Your task to perform on an android device: Go to privacy settings Image 0: 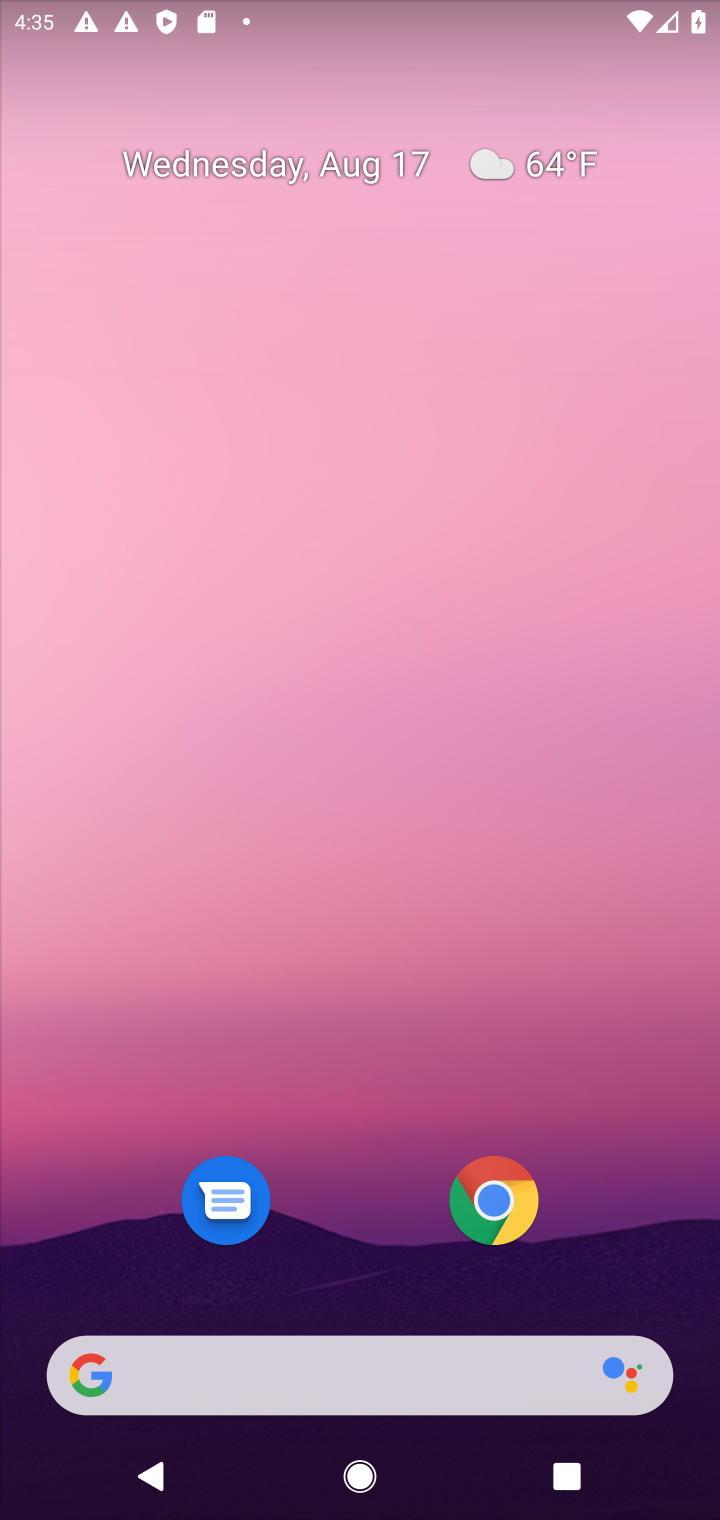
Step 0: drag from (406, 516) to (400, 190)
Your task to perform on an android device: Go to privacy settings Image 1: 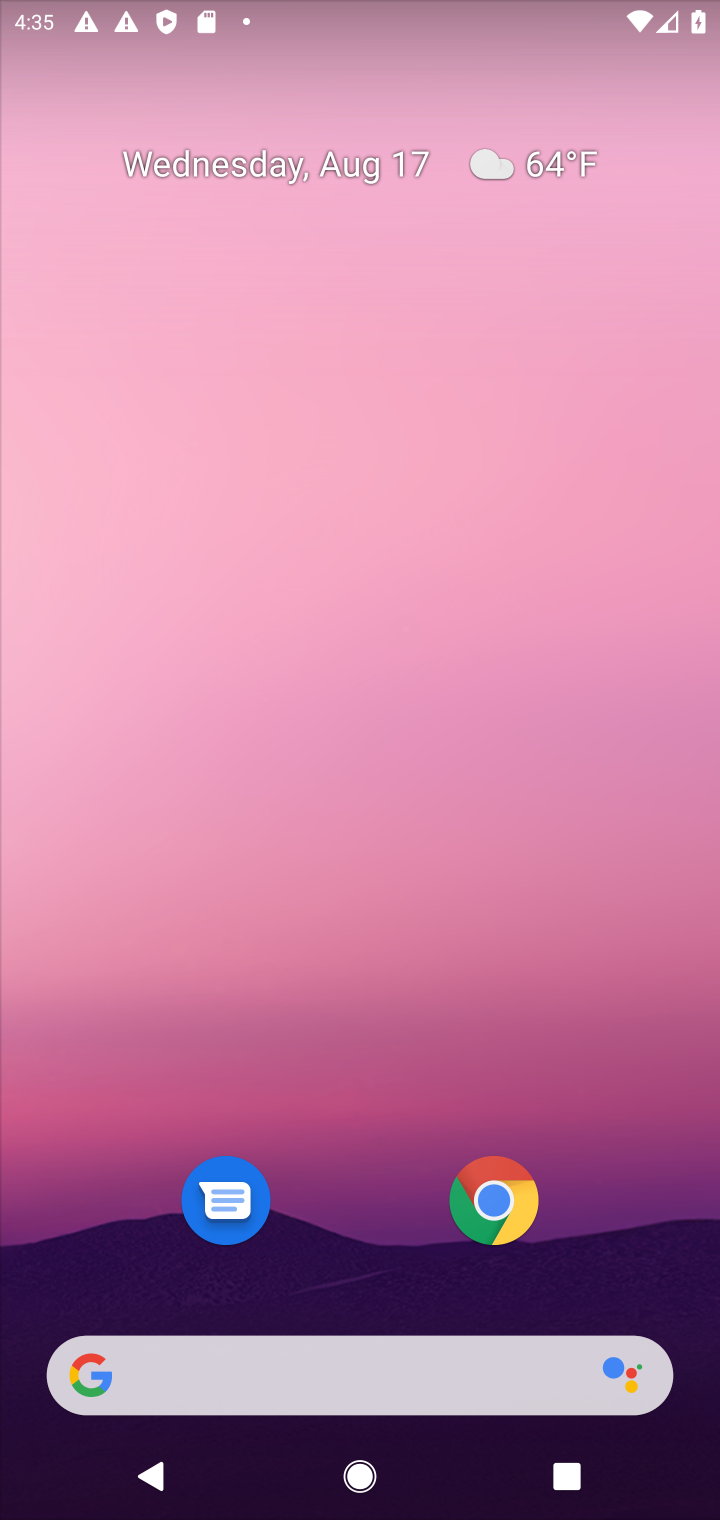
Step 1: drag from (402, 865) to (405, 138)
Your task to perform on an android device: Go to privacy settings Image 2: 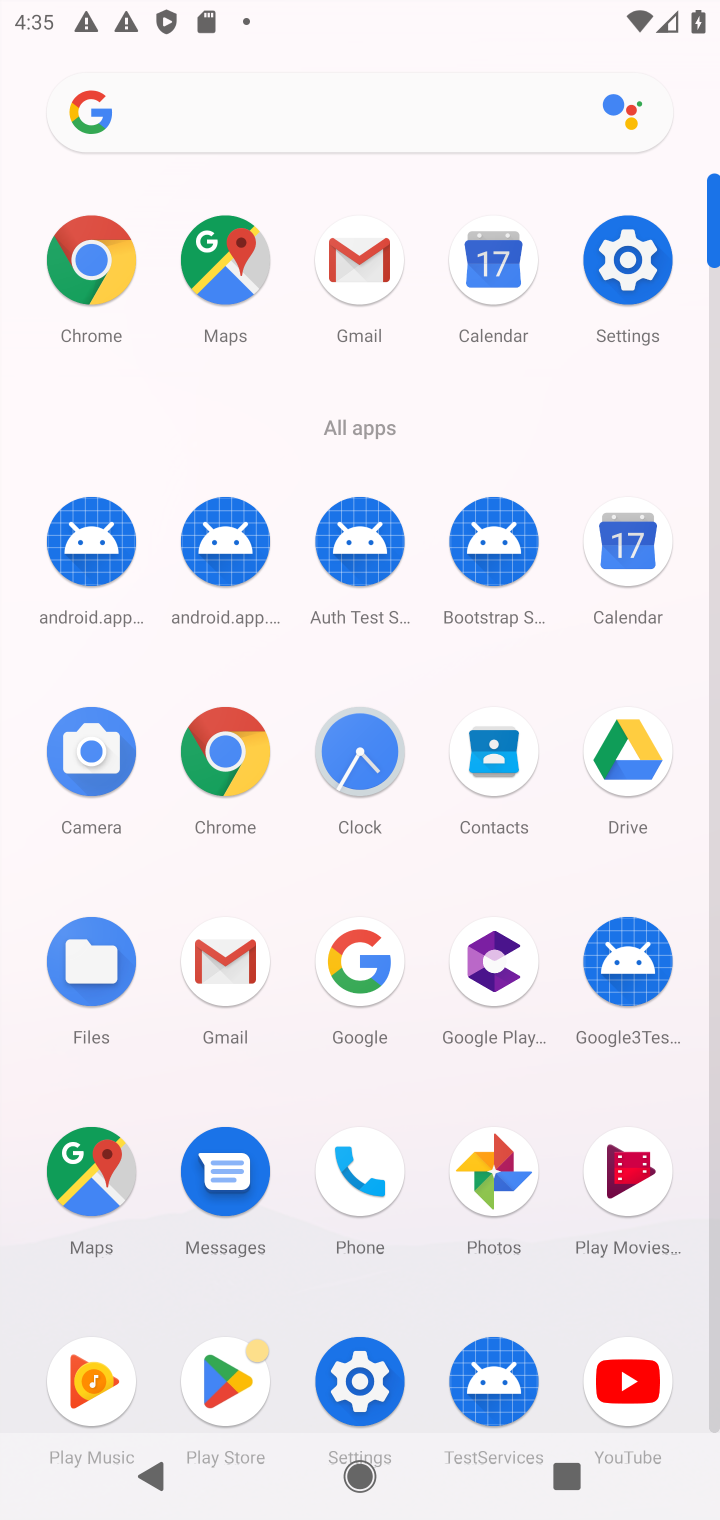
Step 2: click (640, 257)
Your task to perform on an android device: Go to privacy settings Image 3: 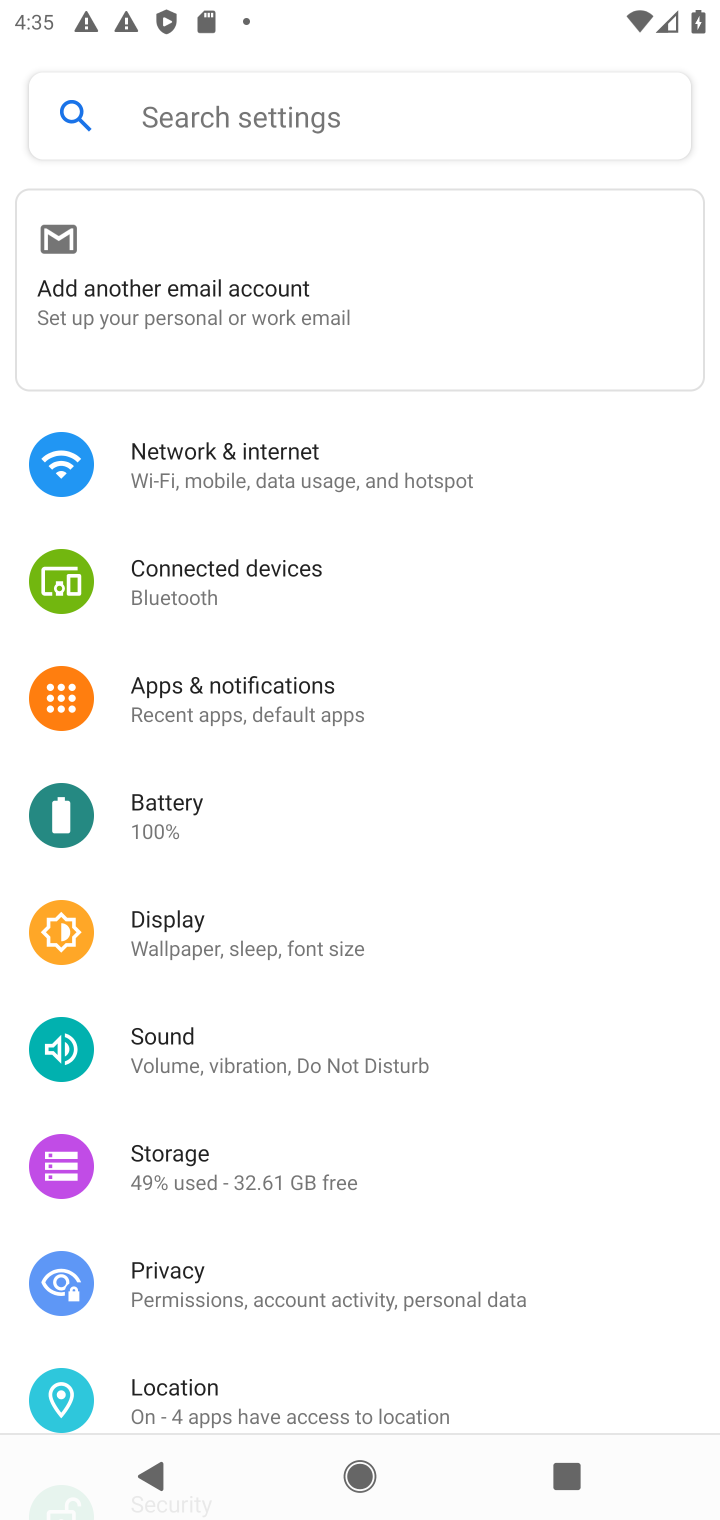
Step 3: drag from (158, 1102) to (194, 576)
Your task to perform on an android device: Go to privacy settings Image 4: 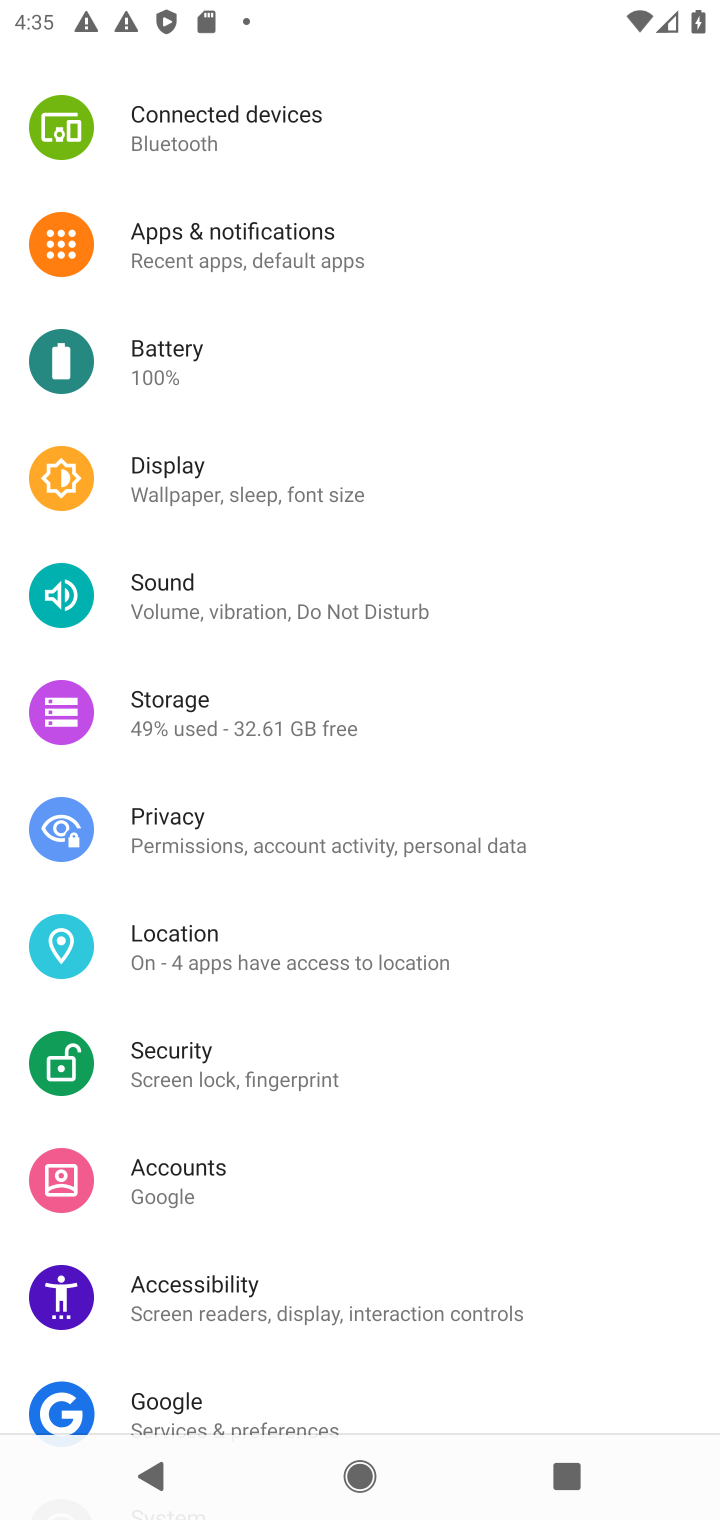
Step 4: click (156, 832)
Your task to perform on an android device: Go to privacy settings Image 5: 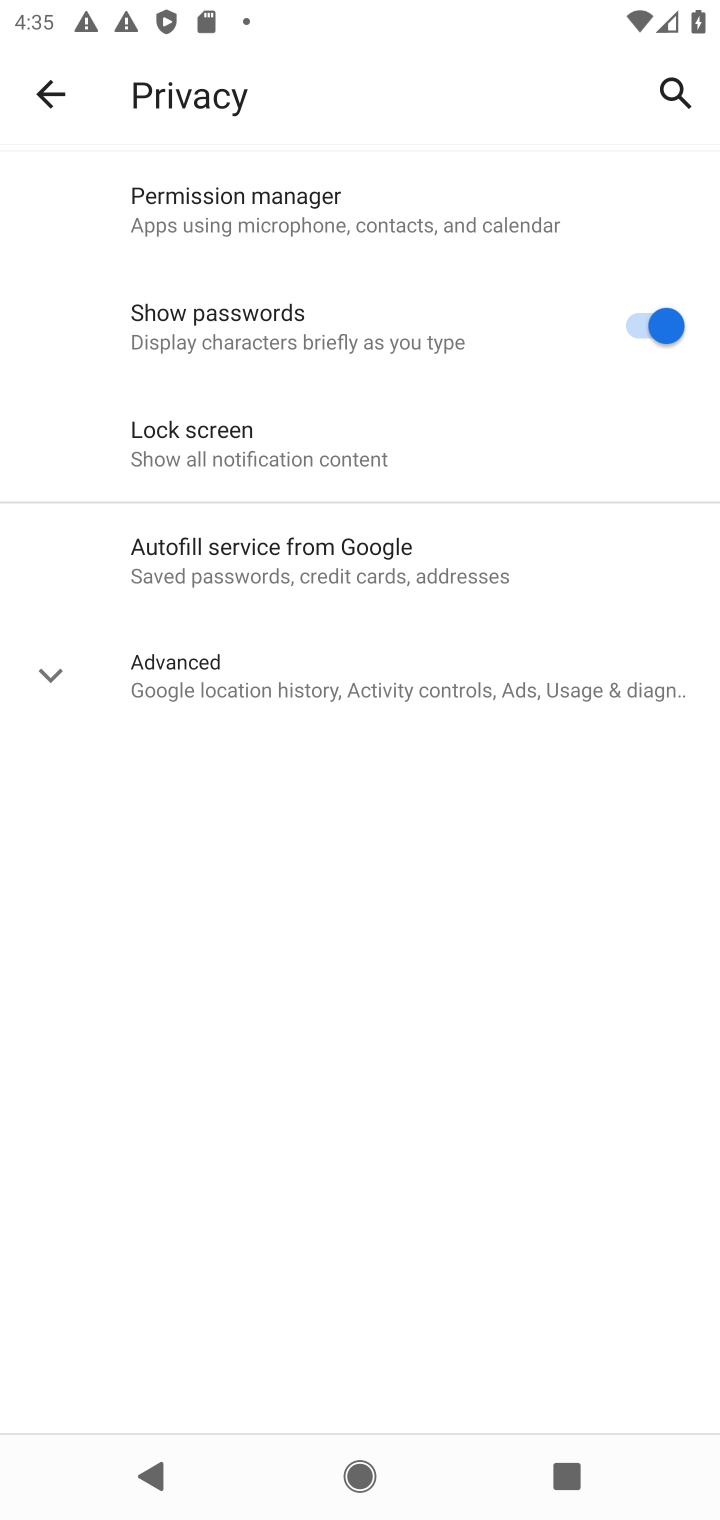
Step 5: task complete